Your task to perform on an android device: check out phone information Image 0: 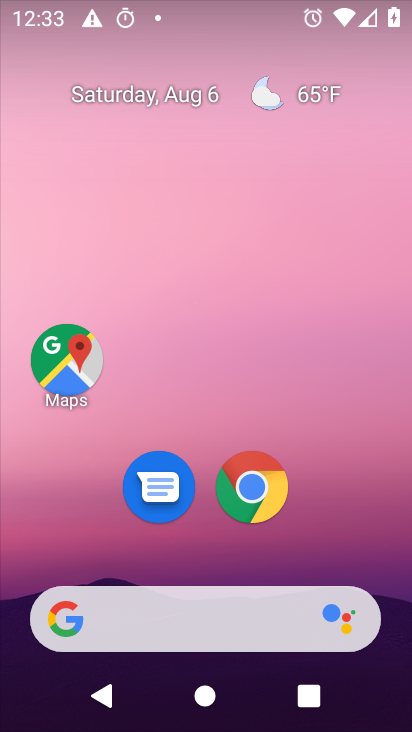
Step 0: drag from (171, 554) to (321, 6)
Your task to perform on an android device: check out phone information Image 1: 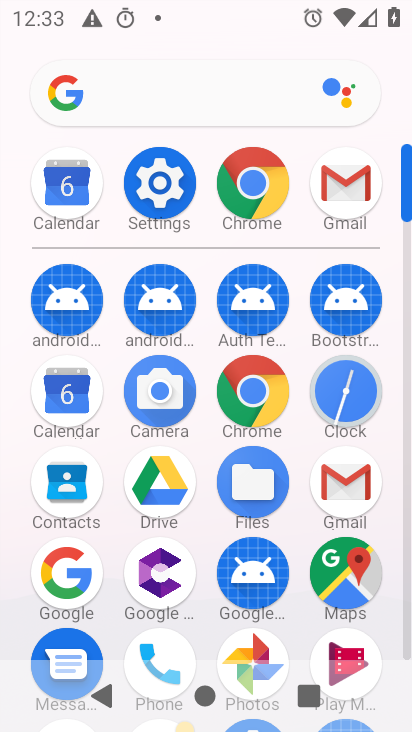
Step 1: click (169, 190)
Your task to perform on an android device: check out phone information Image 2: 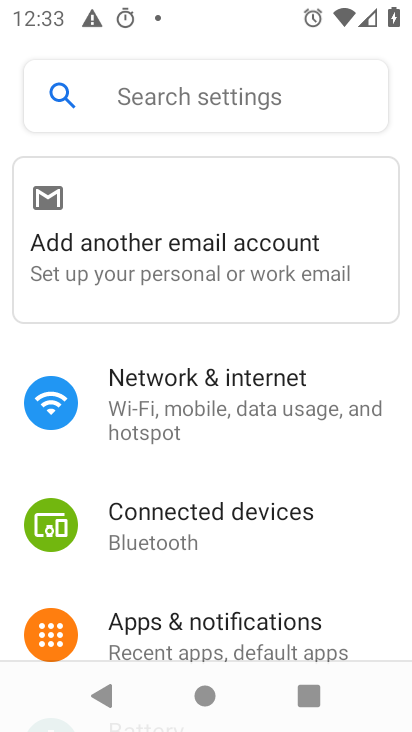
Step 2: drag from (190, 615) to (344, 141)
Your task to perform on an android device: check out phone information Image 3: 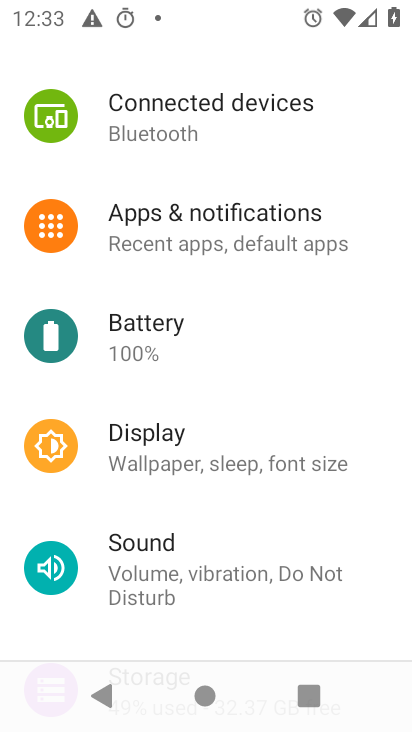
Step 3: drag from (236, 559) to (346, 12)
Your task to perform on an android device: check out phone information Image 4: 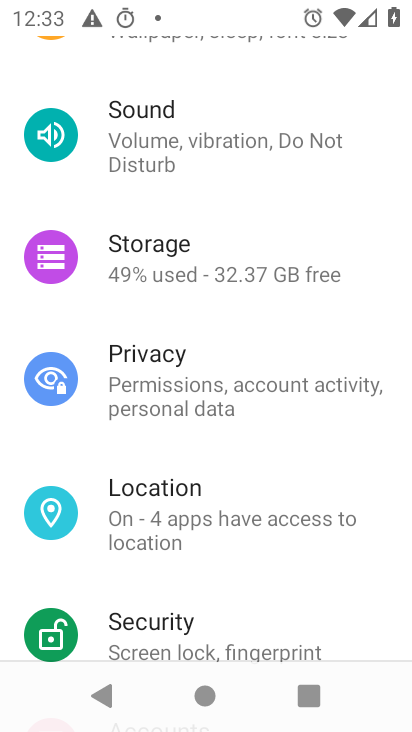
Step 4: drag from (208, 495) to (364, 8)
Your task to perform on an android device: check out phone information Image 5: 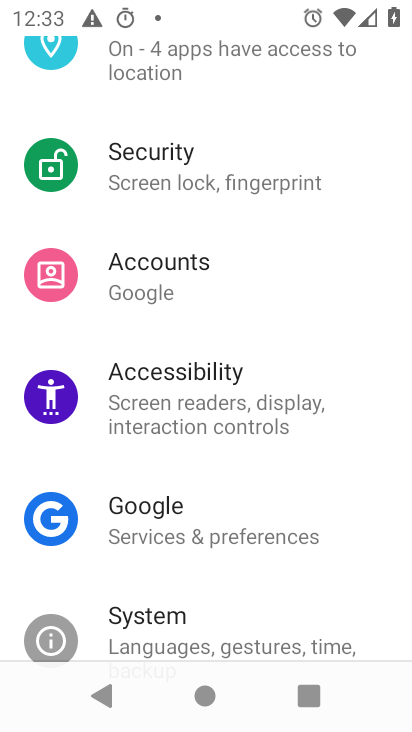
Step 5: drag from (197, 604) to (298, 6)
Your task to perform on an android device: check out phone information Image 6: 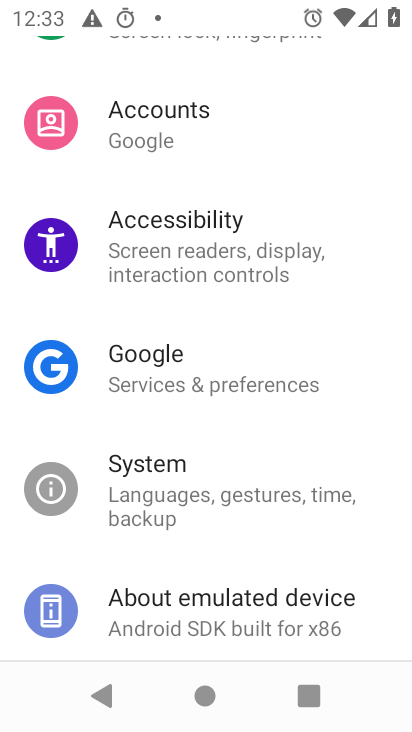
Step 6: click (185, 615)
Your task to perform on an android device: check out phone information Image 7: 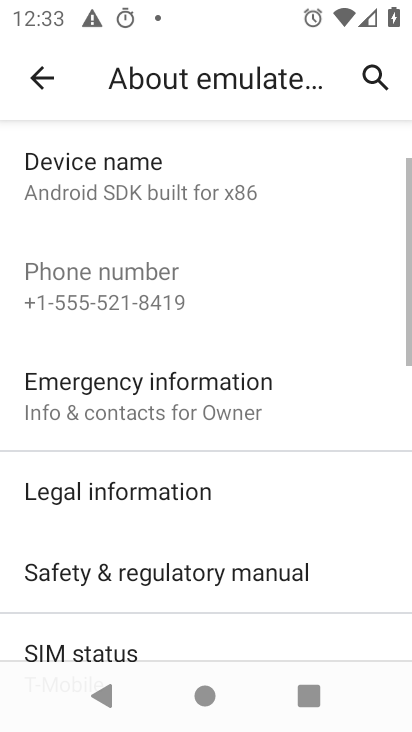
Step 7: task complete